Your task to perform on an android device: Go to Wikipedia Image 0: 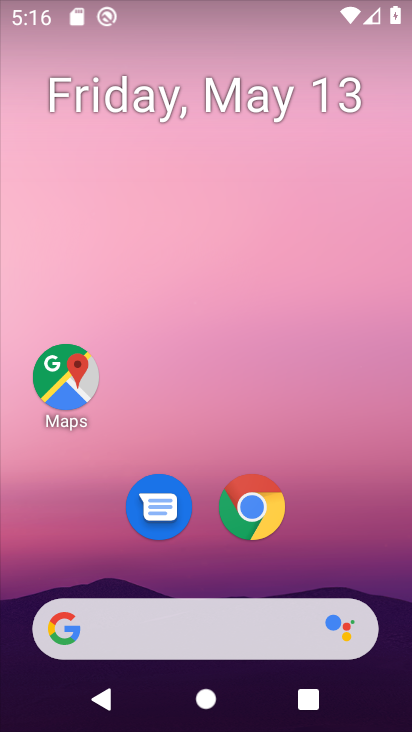
Step 0: click (254, 501)
Your task to perform on an android device: Go to Wikipedia Image 1: 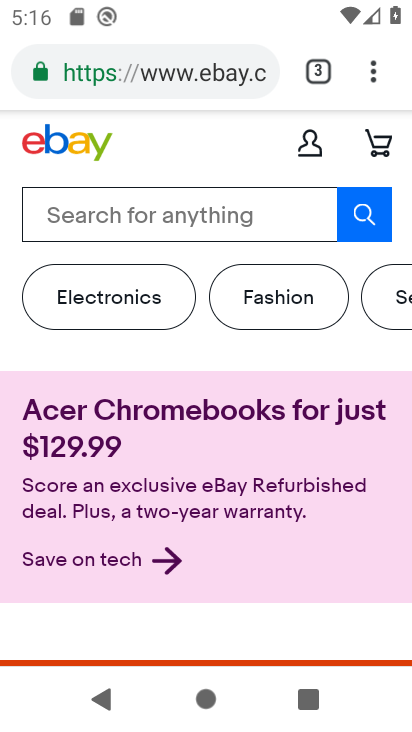
Step 1: click (313, 63)
Your task to perform on an android device: Go to Wikipedia Image 2: 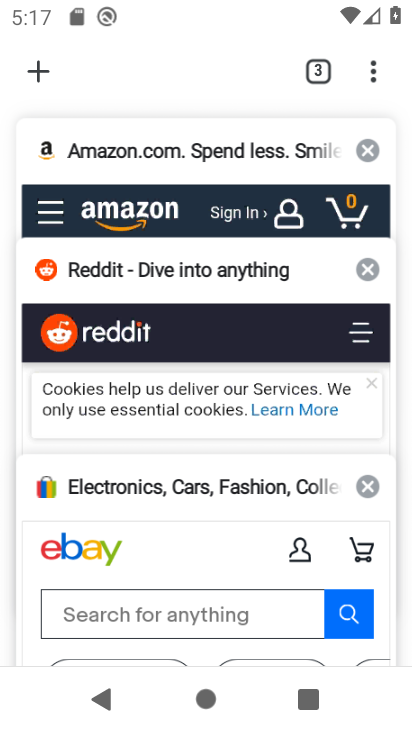
Step 2: click (26, 66)
Your task to perform on an android device: Go to Wikipedia Image 3: 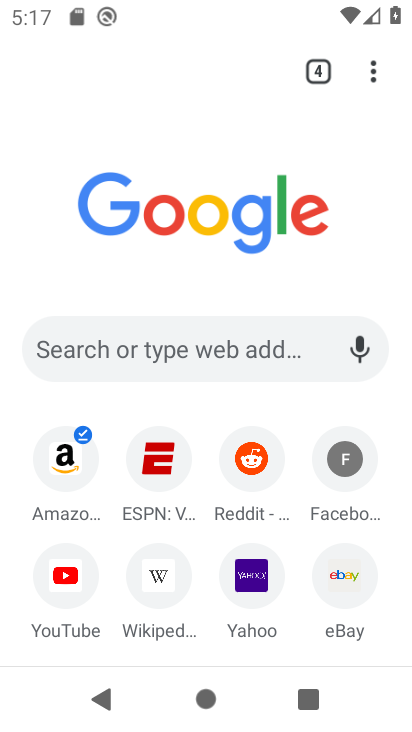
Step 3: click (150, 577)
Your task to perform on an android device: Go to Wikipedia Image 4: 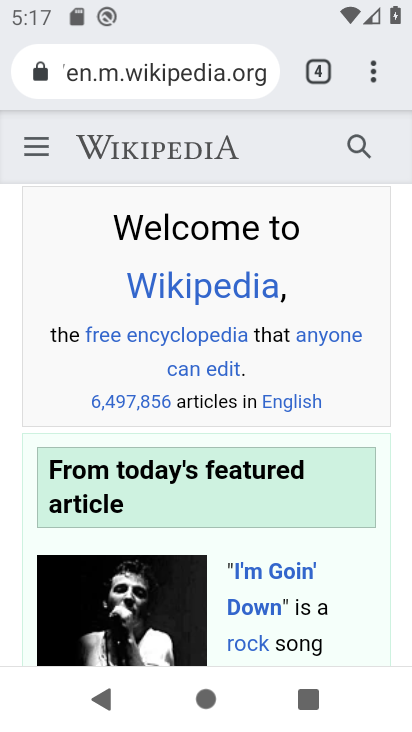
Step 4: task complete